Your task to perform on an android device: toggle location history Image 0: 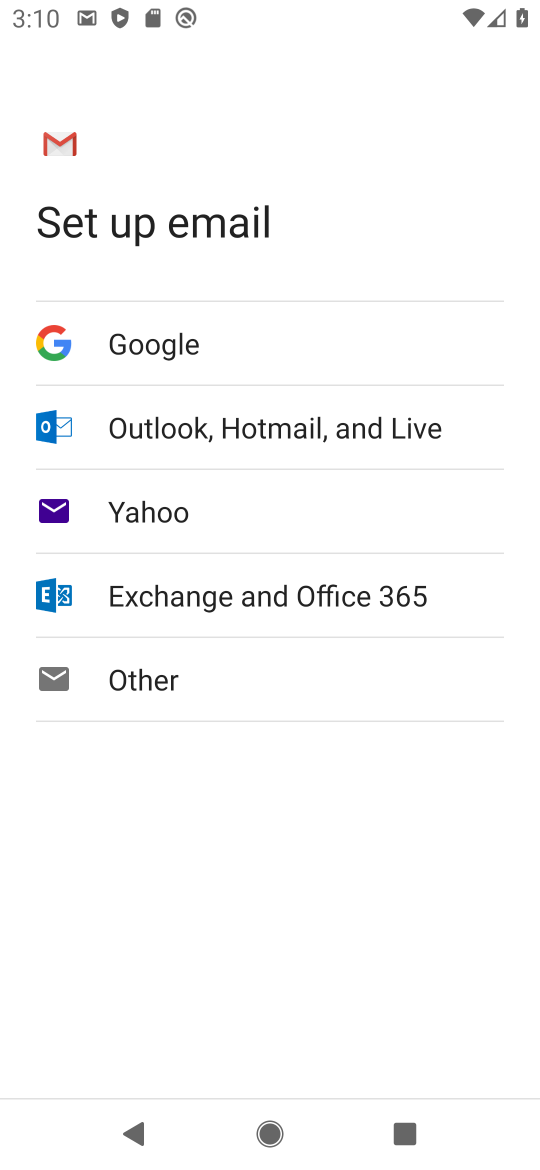
Step 0: press home button
Your task to perform on an android device: toggle location history Image 1: 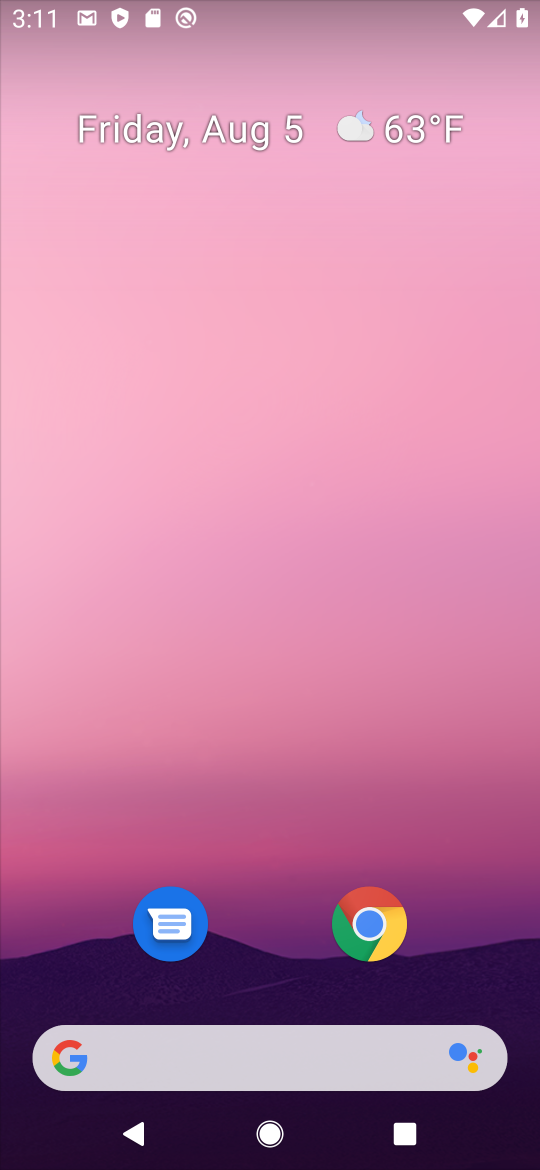
Step 1: drag from (237, 824) to (361, 116)
Your task to perform on an android device: toggle location history Image 2: 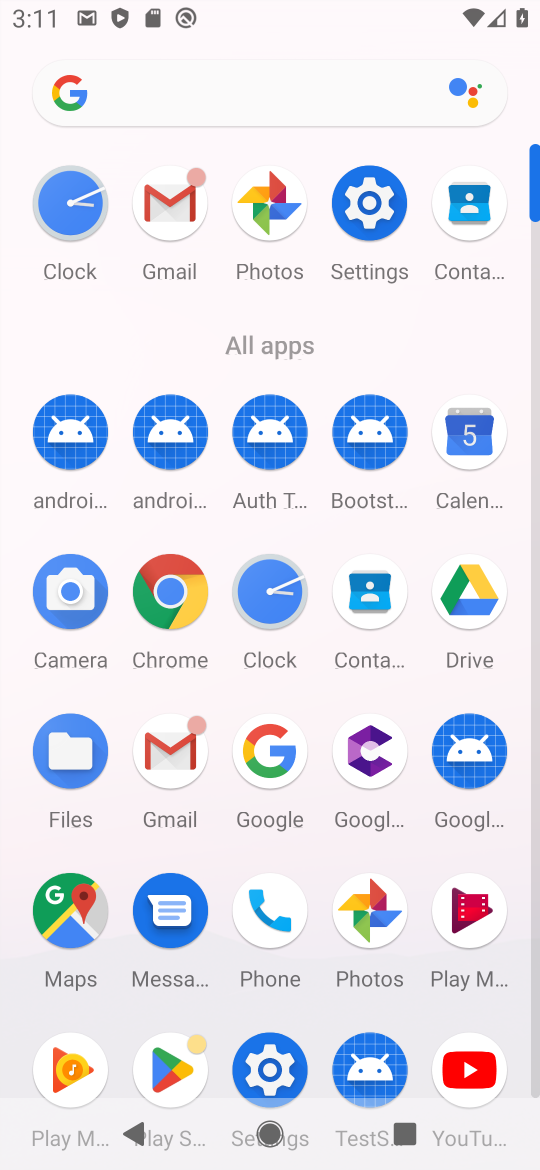
Step 2: click (250, 1056)
Your task to perform on an android device: toggle location history Image 3: 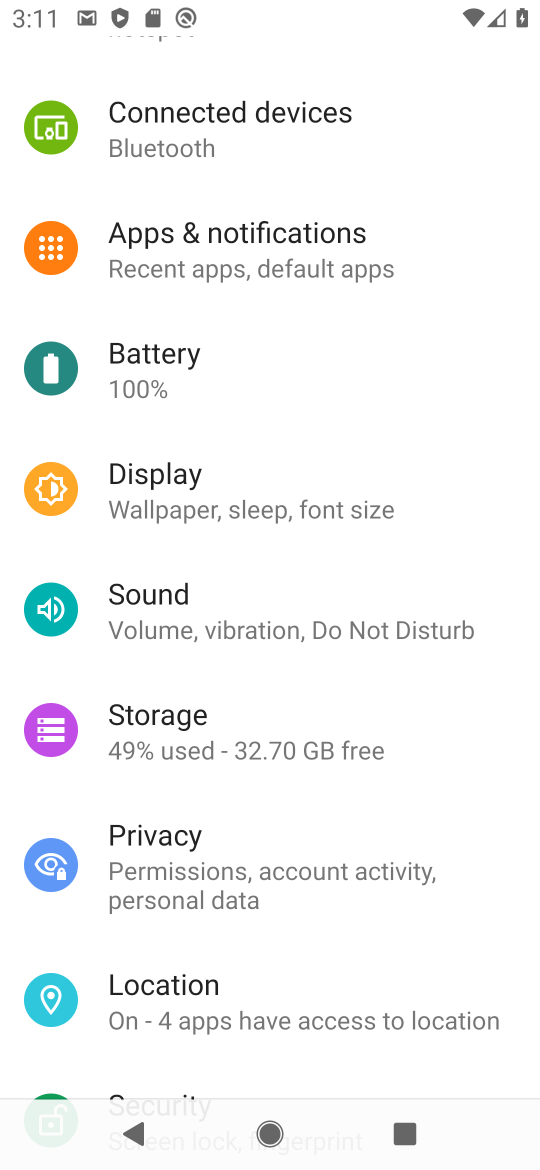
Step 3: click (270, 996)
Your task to perform on an android device: toggle location history Image 4: 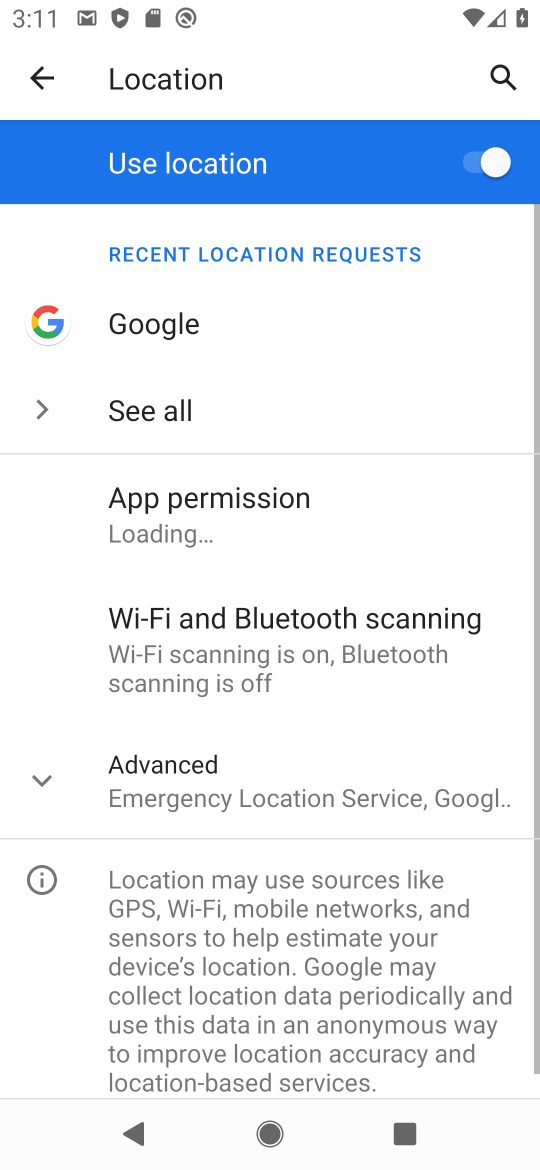
Step 4: click (311, 808)
Your task to perform on an android device: toggle location history Image 5: 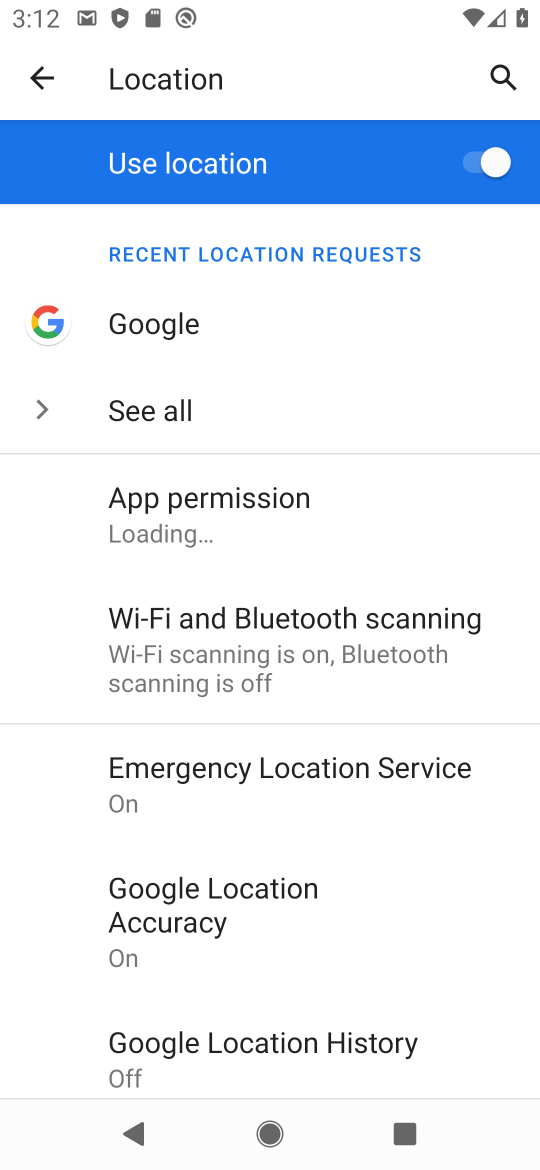
Step 5: drag from (322, 972) to (346, 493)
Your task to perform on an android device: toggle location history Image 6: 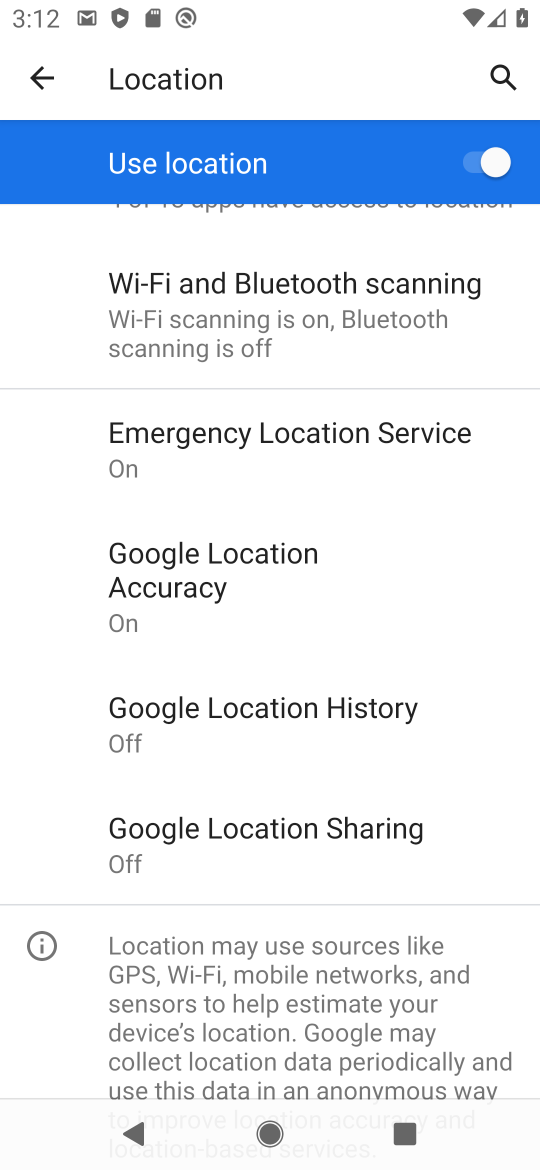
Step 6: click (337, 706)
Your task to perform on an android device: toggle location history Image 7: 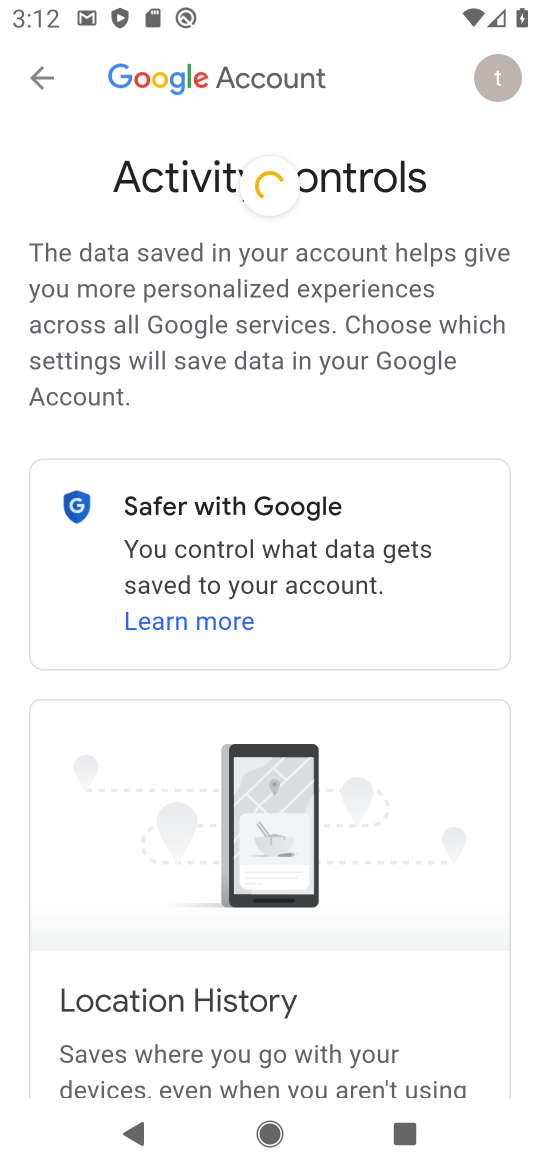
Step 7: drag from (330, 845) to (365, 188)
Your task to perform on an android device: toggle location history Image 8: 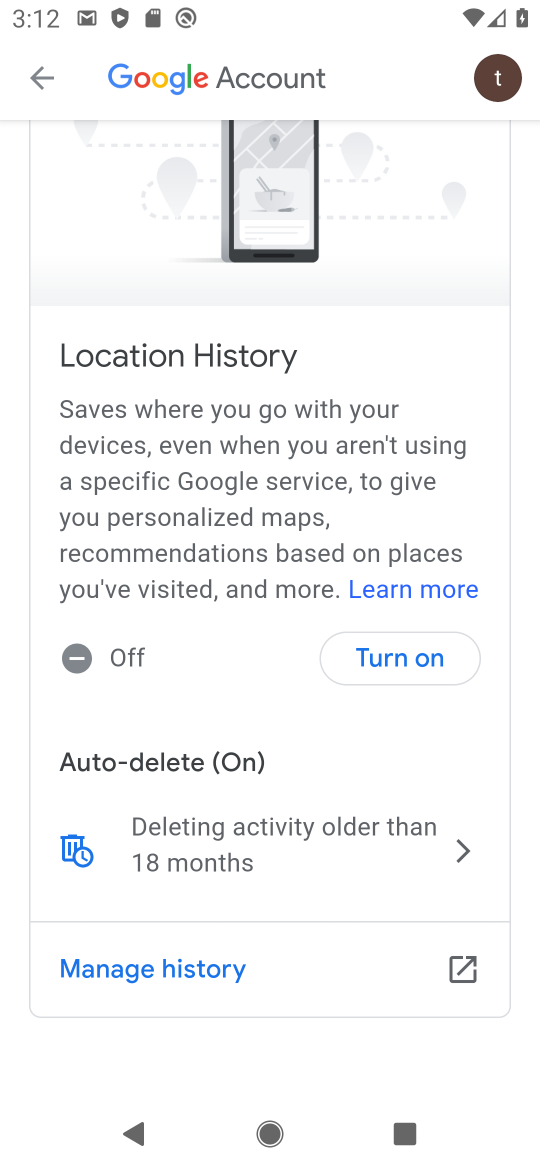
Step 8: click (429, 650)
Your task to perform on an android device: toggle location history Image 9: 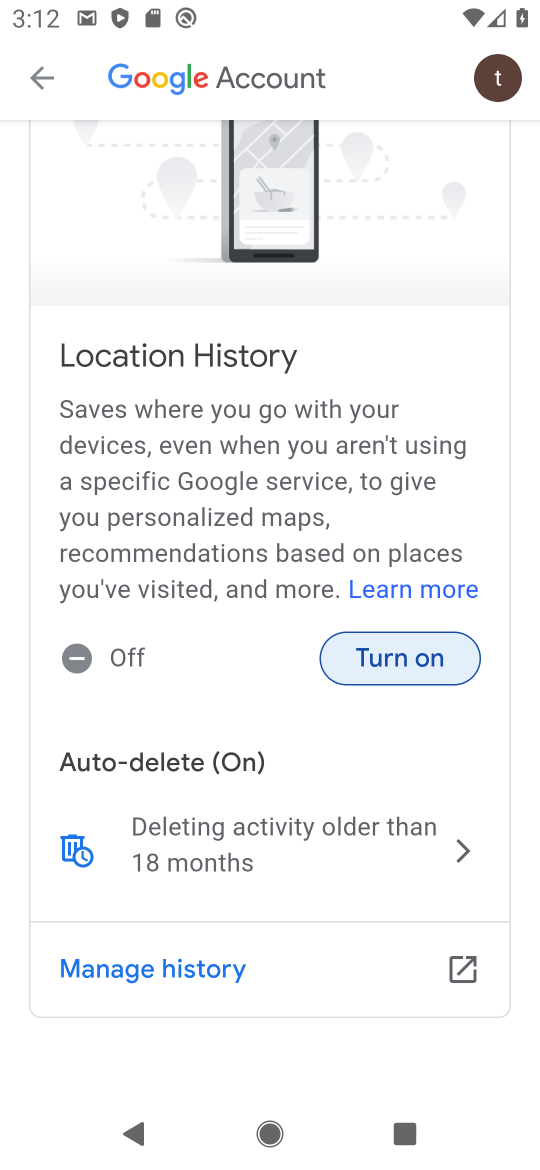
Step 9: click (436, 668)
Your task to perform on an android device: toggle location history Image 10: 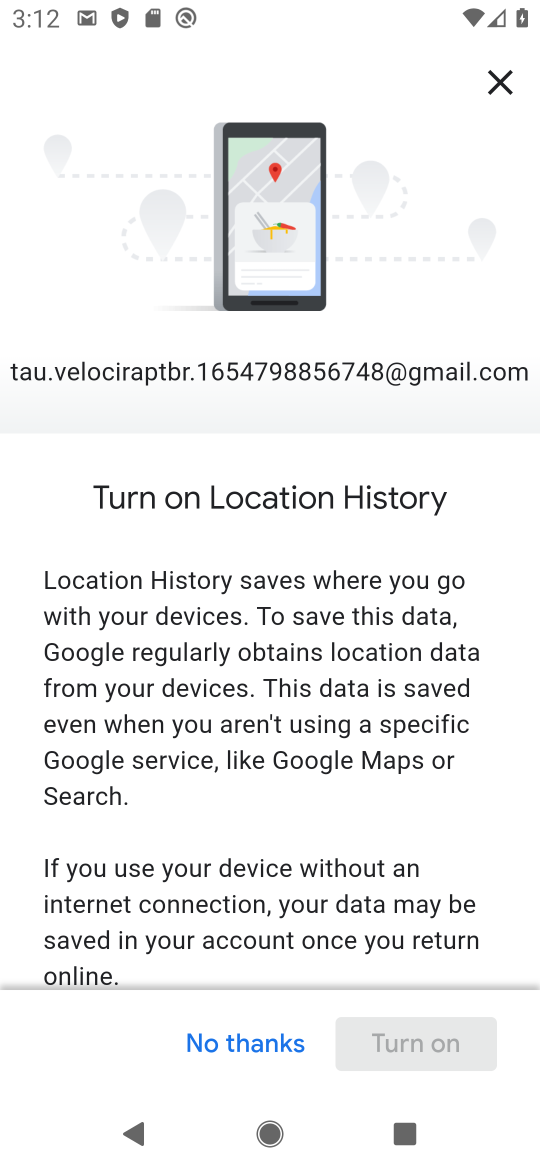
Step 10: drag from (408, 671) to (368, 0)
Your task to perform on an android device: toggle location history Image 11: 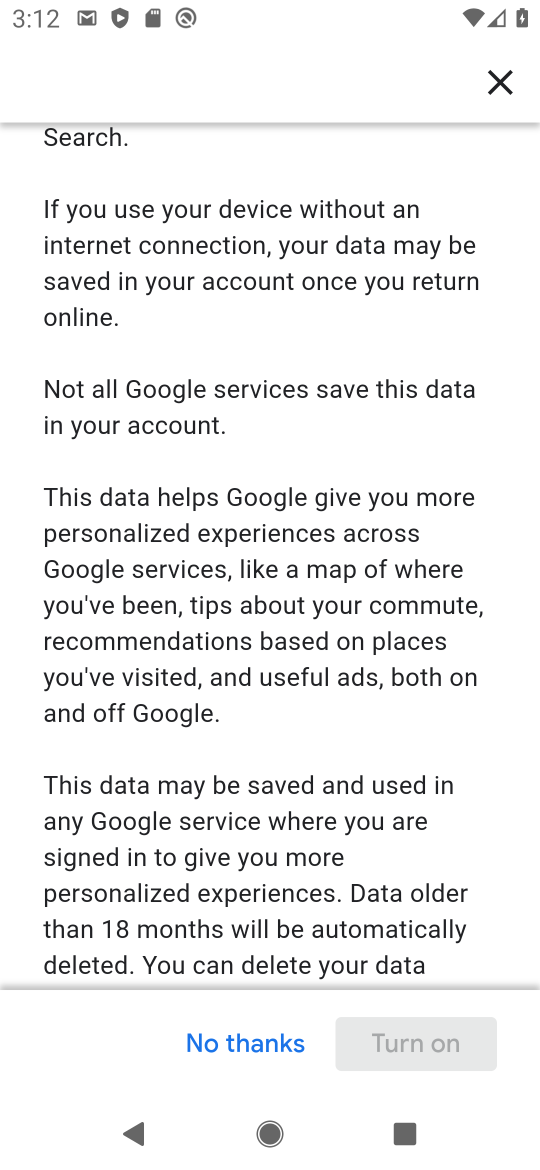
Step 11: drag from (400, 807) to (335, 0)
Your task to perform on an android device: toggle location history Image 12: 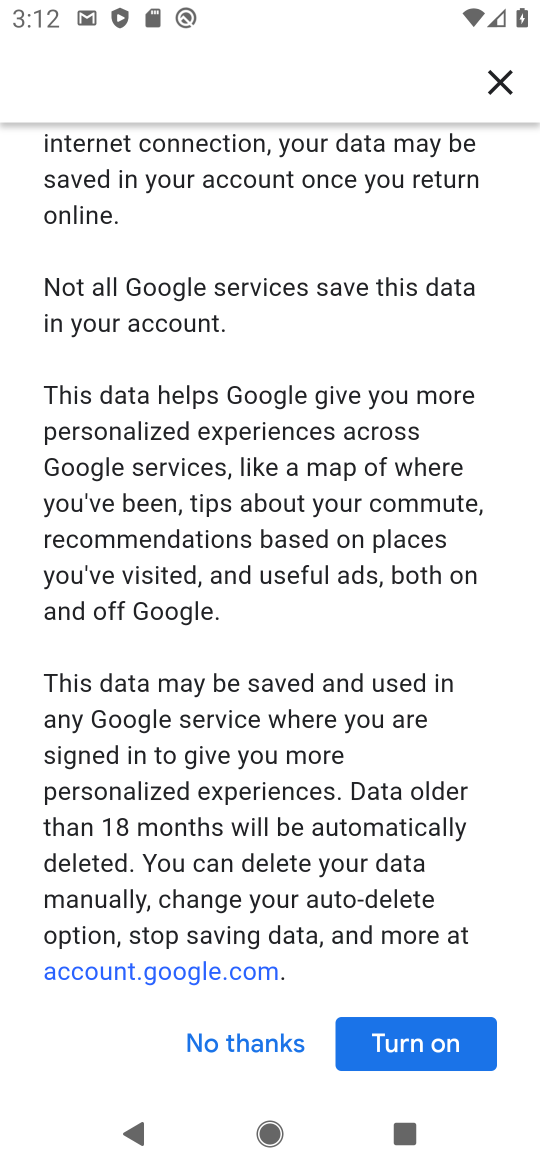
Step 12: click (462, 1051)
Your task to perform on an android device: toggle location history Image 13: 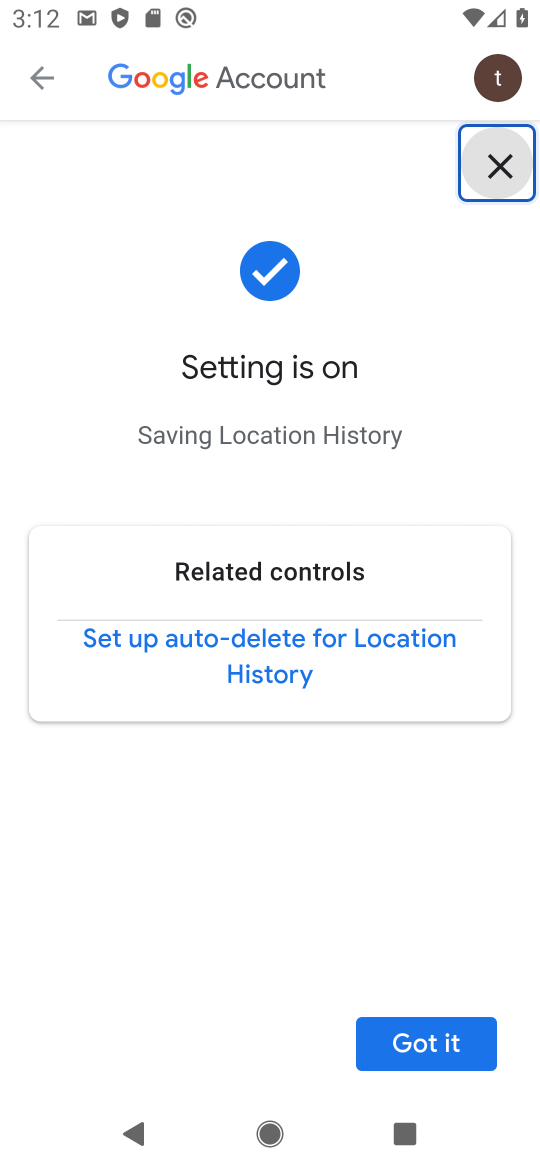
Step 13: click (400, 1054)
Your task to perform on an android device: toggle location history Image 14: 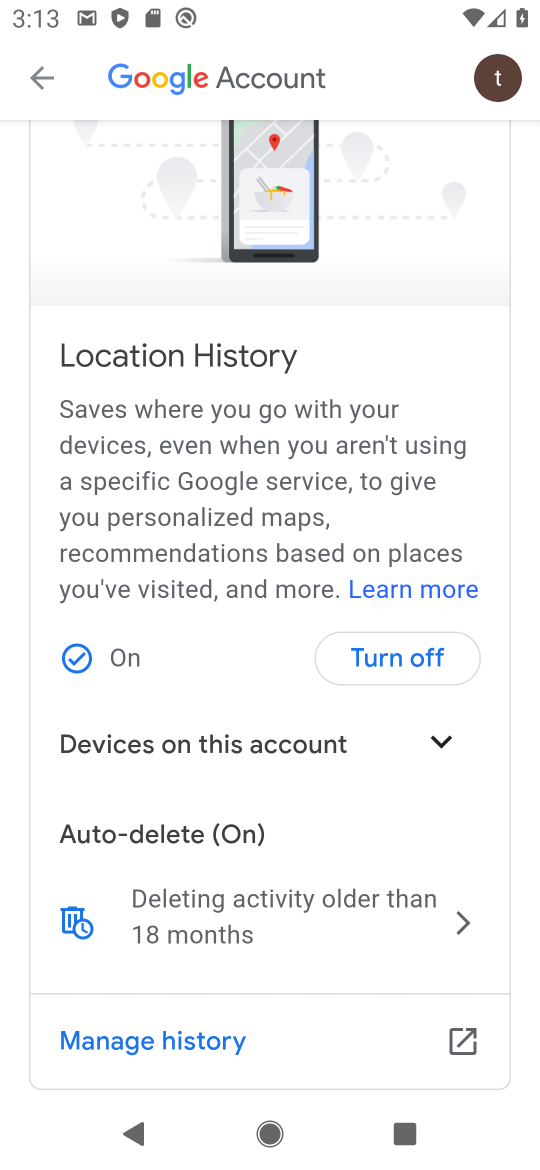
Step 14: task complete